Your task to perform on an android device: turn off picture-in-picture Image 0: 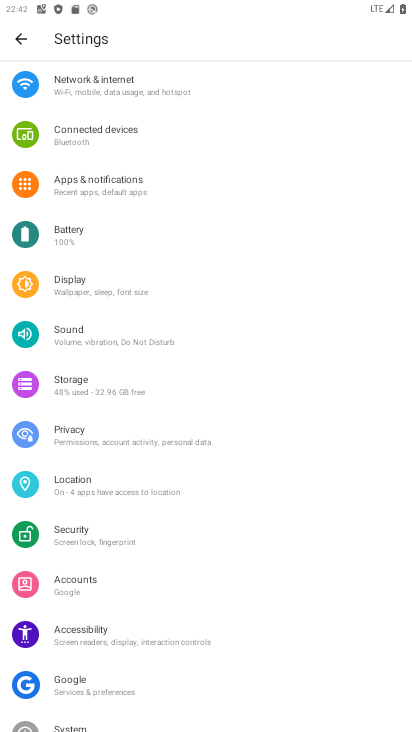
Step 0: press home button
Your task to perform on an android device: turn off picture-in-picture Image 1: 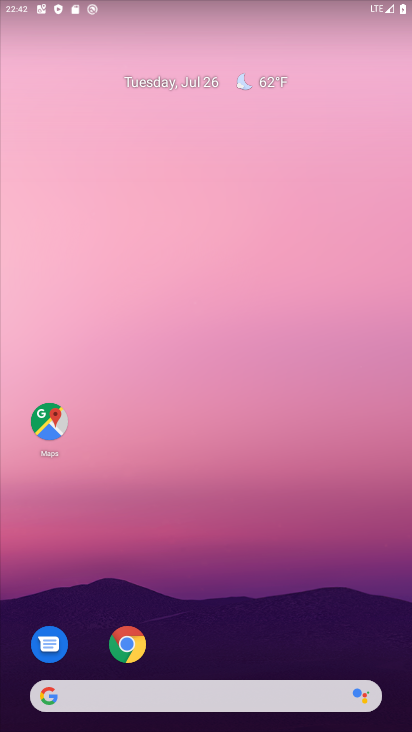
Step 1: click (133, 647)
Your task to perform on an android device: turn off picture-in-picture Image 2: 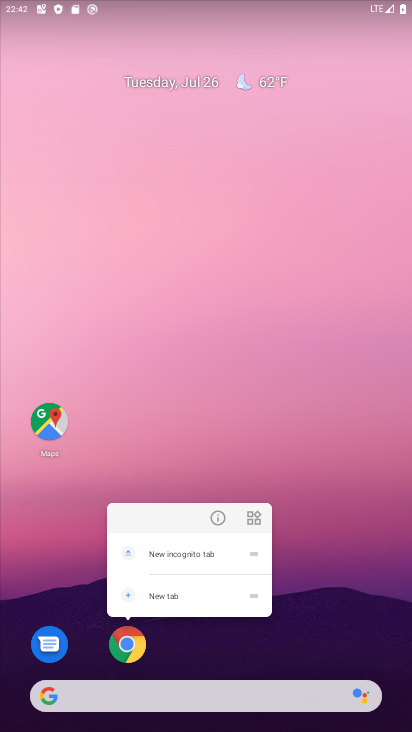
Step 2: click (217, 523)
Your task to perform on an android device: turn off picture-in-picture Image 3: 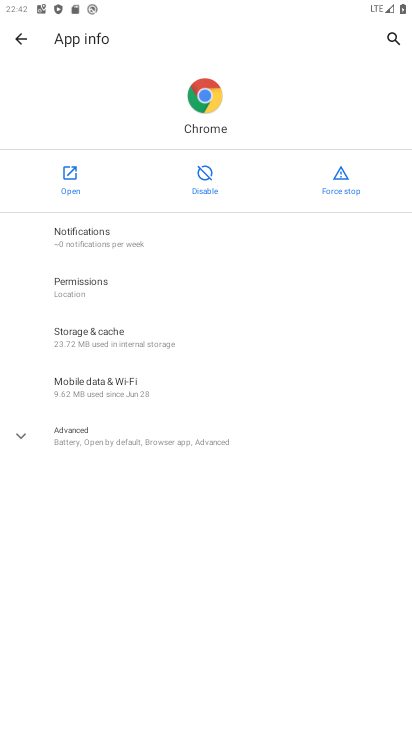
Step 3: click (19, 440)
Your task to perform on an android device: turn off picture-in-picture Image 4: 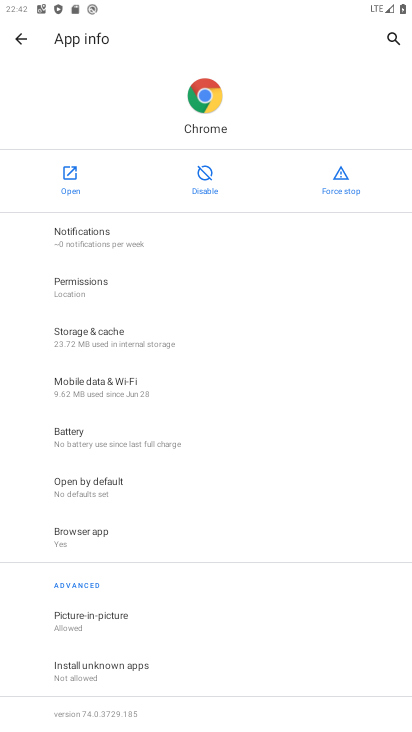
Step 4: click (102, 619)
Your task to perform on an android device: turn off picture-in-picture Image 5: 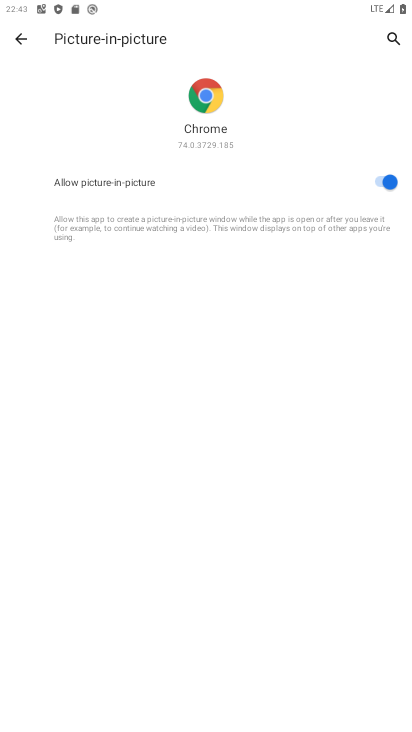
Step 5: click (398, 183)
Your task to perform on an android device: turn off picture-in-picture Image 6: 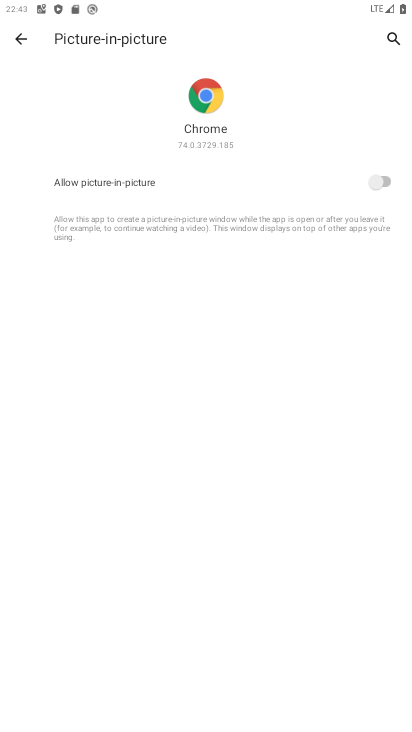
Step 6: task complete